Your task to perform on an android device: View the shopping cart on walmart.com. Search for "usb-a" on walmart.com, select the first entry, and add it to the cart. Image 0: 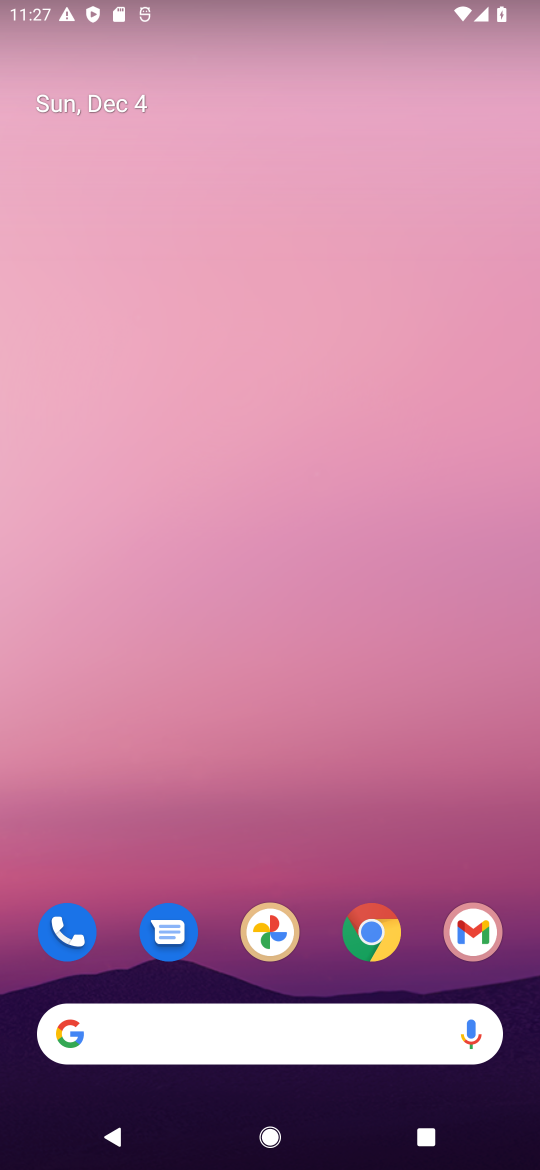
Step 0: task complete